Your task to perform on an android device: remove spam from my inbox in the gmail app Image 0: 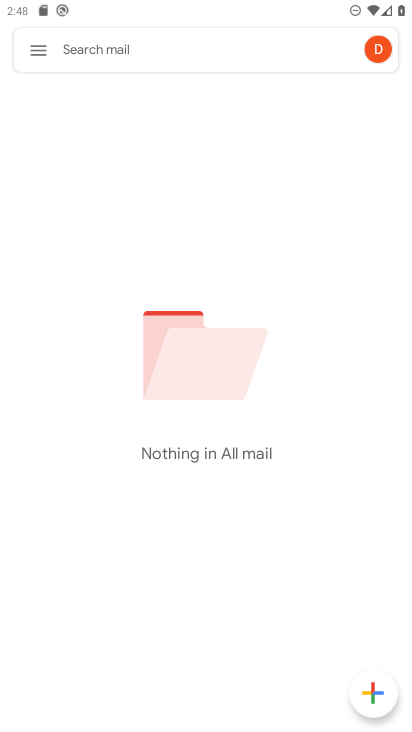
Step 0: press home button
Your task to perform on an android device: remove spam from my inbox in the gmail app Image 1: 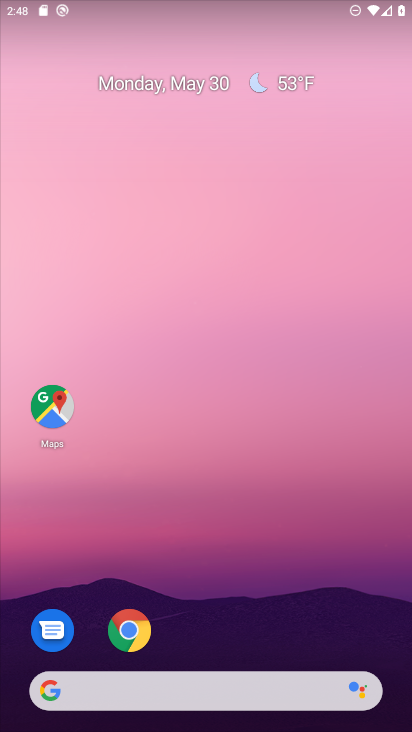
Step 1: drag from (110, 687) to (145, 108)
Your task to perform on an android device: remove spam from my inbox in the gmail app Image 2: 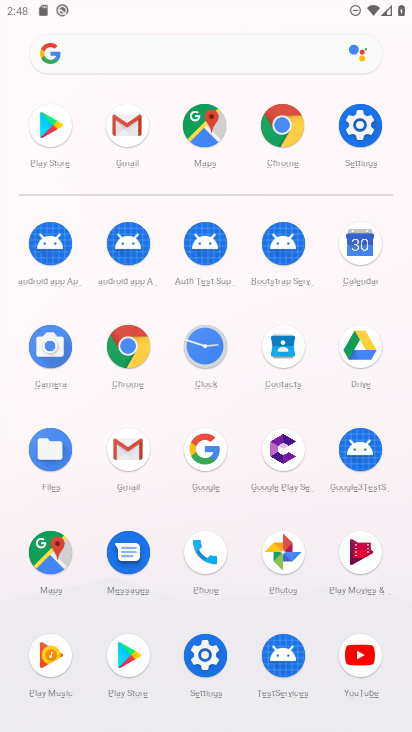
Step 2: click (123, 451)
Your task to perform on an android device: remove spam from my inbox in the gmail app Image 3: 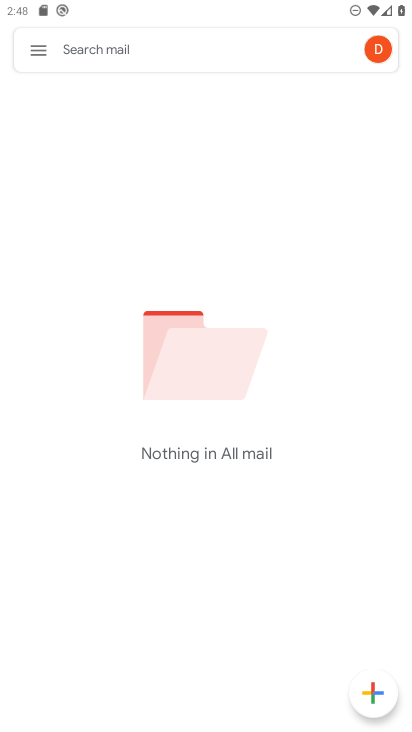
Step 3: click (41, 56)
Your task to perform on an android device: remove spam from my inbox in the gmail app Image 4: 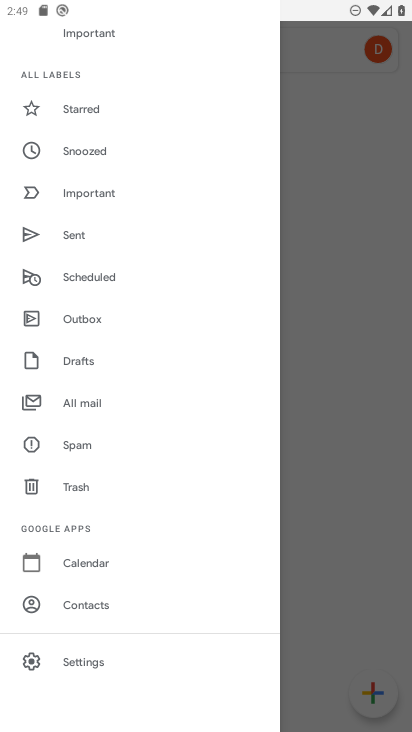
Step 4: click (80, 661)
Your task to perform on an android device: remove spam from my inbox in the gmail app Image 5: 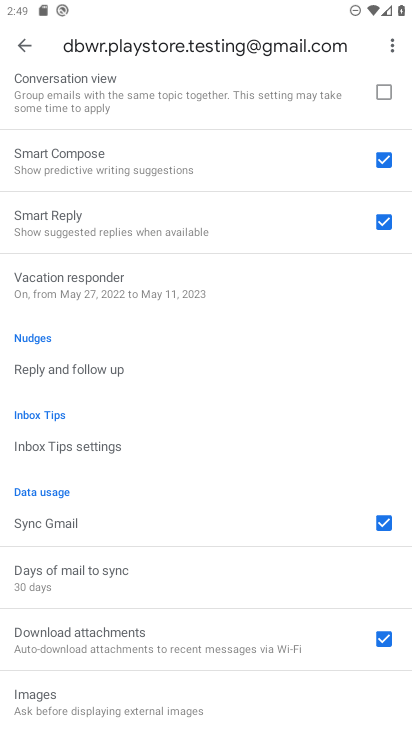
Step 5: click (18, 40)
Your task to perform on an android device: remove spam from my inbox in the gmail app Image 6: 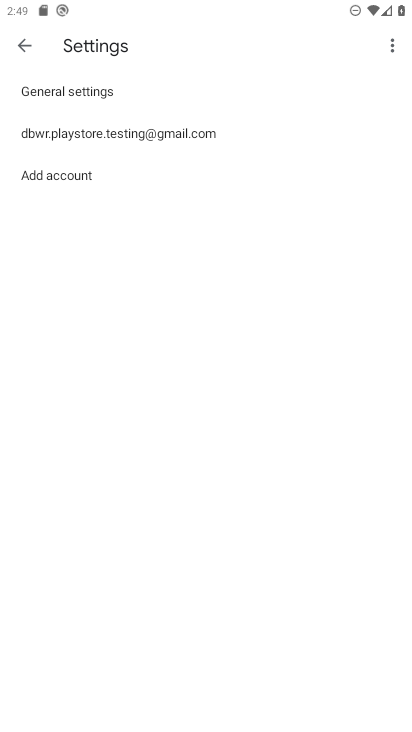
Step 6: click (18, 40)
Your task to perform on an android device: remove spam from my inbox in the gmail app Image 7: 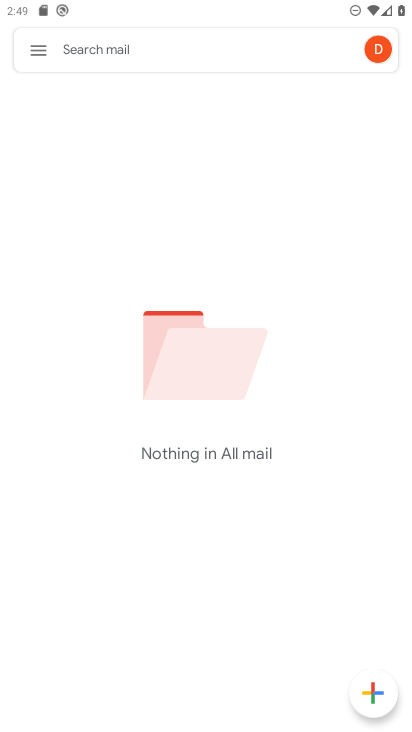
Step 7: click (21, 50)
Your task to perform on an android device: remove spam from my inbox in the gmail app Image 8: 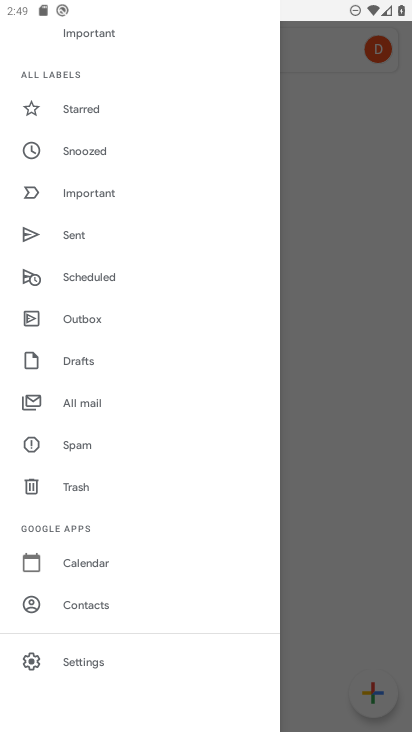
Step 8: click (86, 445)
Your task to perform on an android device: remove spam from my inbox in the gmail app Image 9: 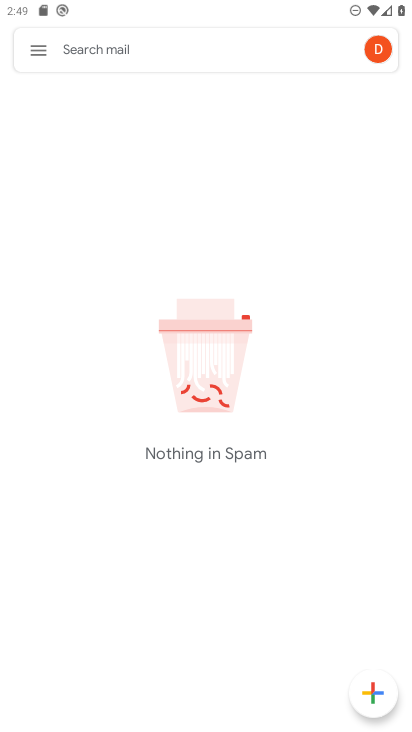
Step 9: task complete